Your task to perform on an android device: Open Google Chrome Image 0: 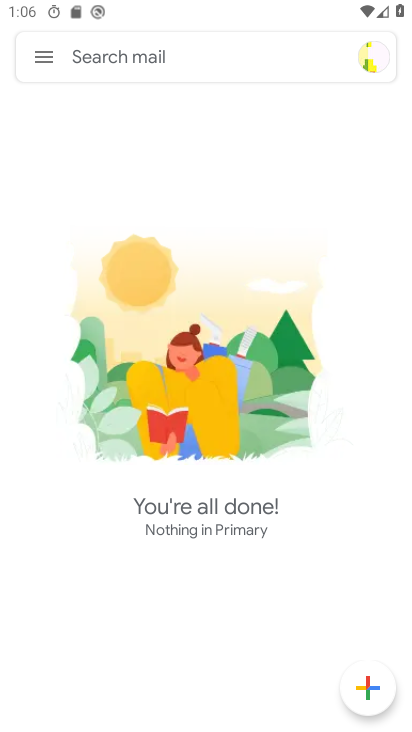
Step 0: drag from (184, 176) to (388, 653)
Your task to perform on an android device: Open Google Chrome Image 1: 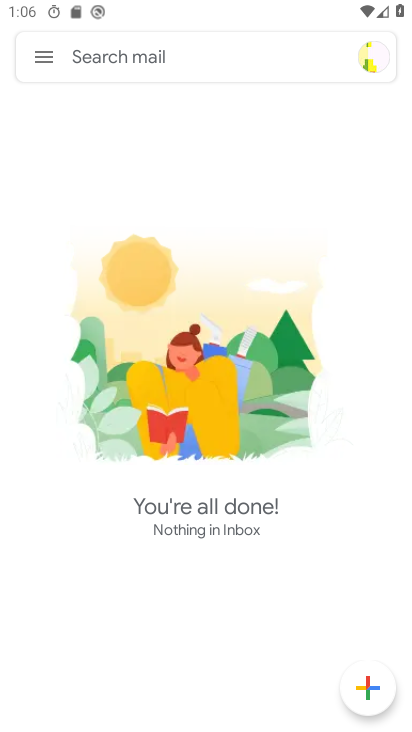
Step 1: press home button
Your task to perform on an android device: Open Google Chrome Image 2: 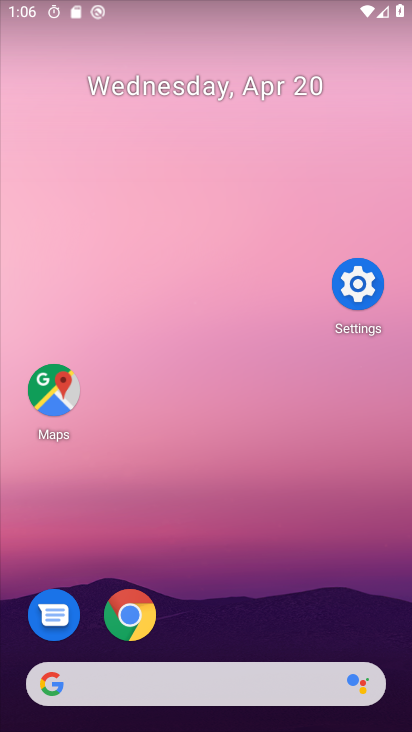
Step 2: click (127, 619)
Your task to perform on an android device: Open Google Chrome Image 3: 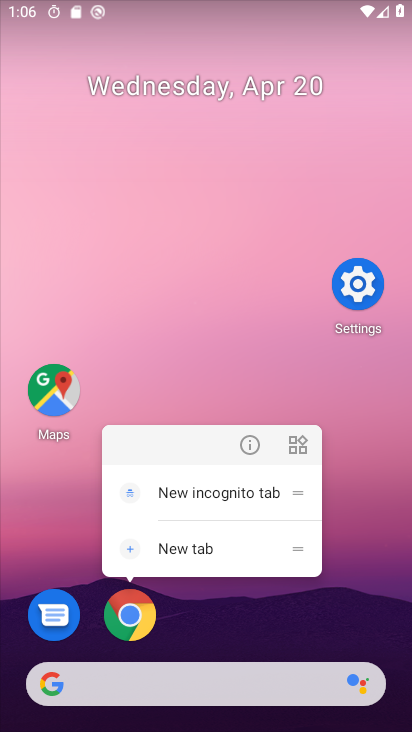
Step 3: click (246, 447)
Your task to perform on an android device: Open Google Chrome Image 4: 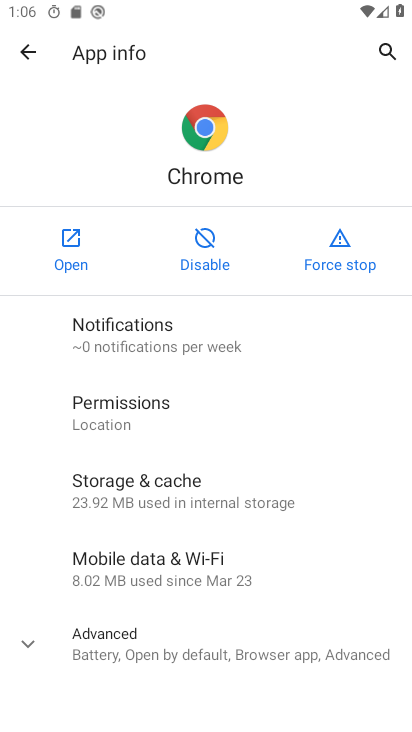
Step 4: click (45, 246)
Your task to perform on an android device: Open Google Chrome Image 5: 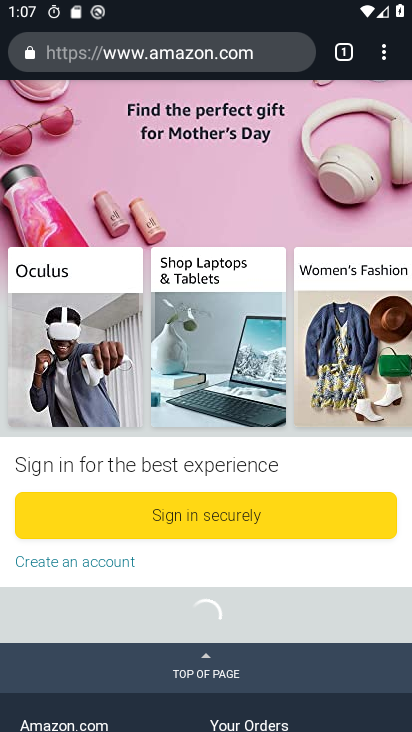
Step 5: task complete